Your task to perform on an android device: check the backup settings in the google photos Image 0: 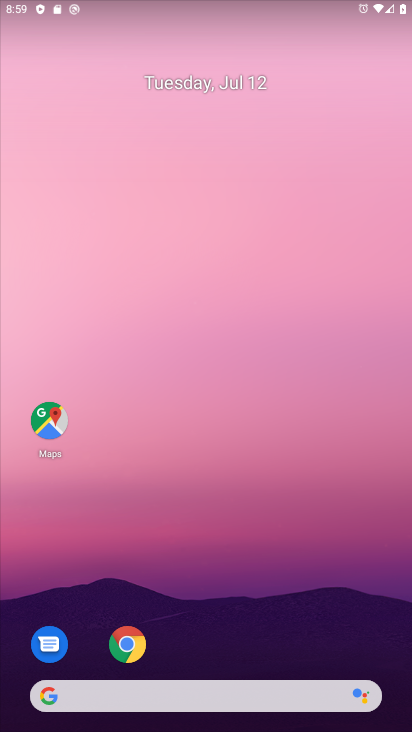
Step 0: drag from (25, 719) to (391, 24)
Your task to perform on an android device: check the backup settings in the google photos Image 1: 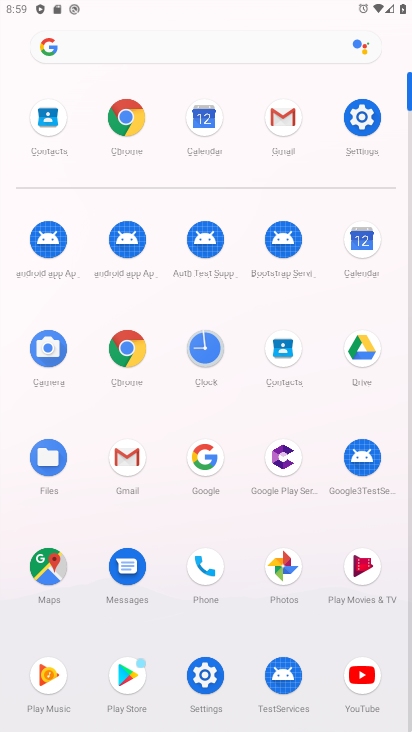
Step 1: click (289, 556)
Your task to perform on an android device: check the backup settings in the google photos Image 2: 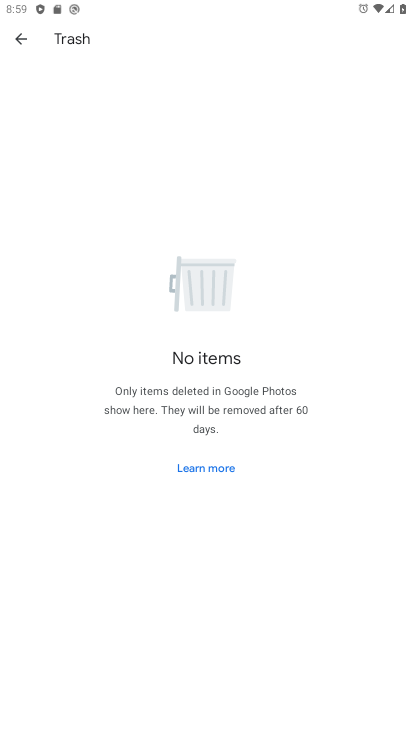
Step 2: click (23, 46)
Your task to perform on an android device: check the backup settings in the google photos Image 3: 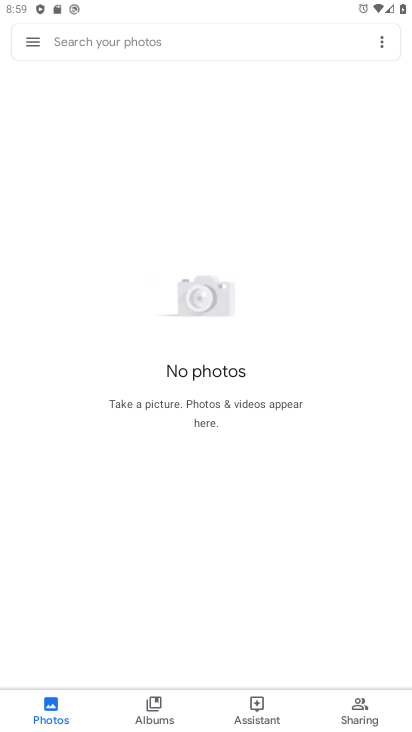
Step 3: click (39, 38)
Your task to perform on an android device: check the backup settings in the google photos Image 4: 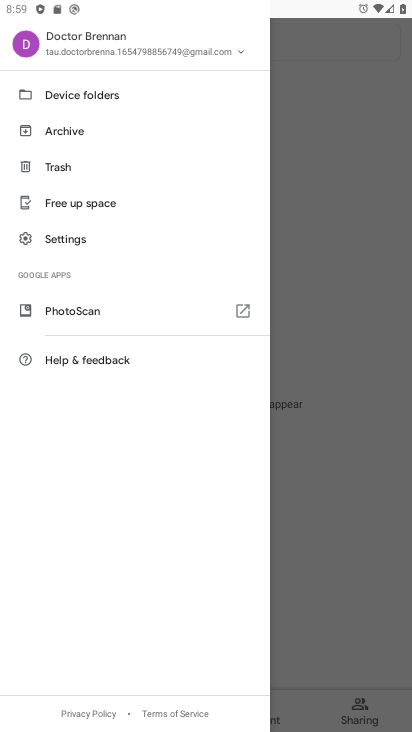
Step 4: click (70, 243)
Your task to perform on an android device: check the backup settings in the google photos Image 5: 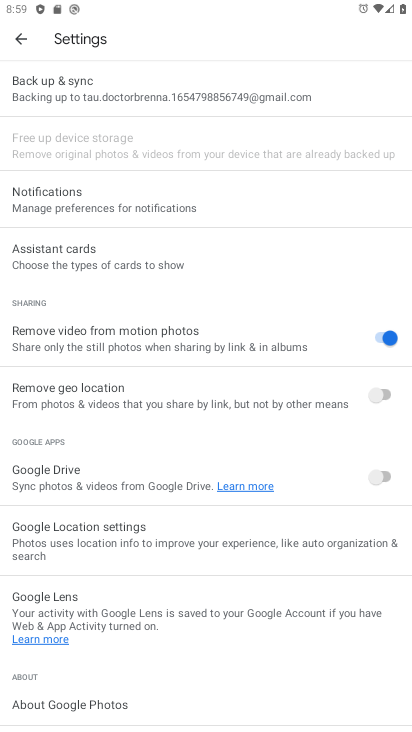
Step 5: click (85, 87)
Your task to perform on an android device: check the backup settings in the google photos Image 6: 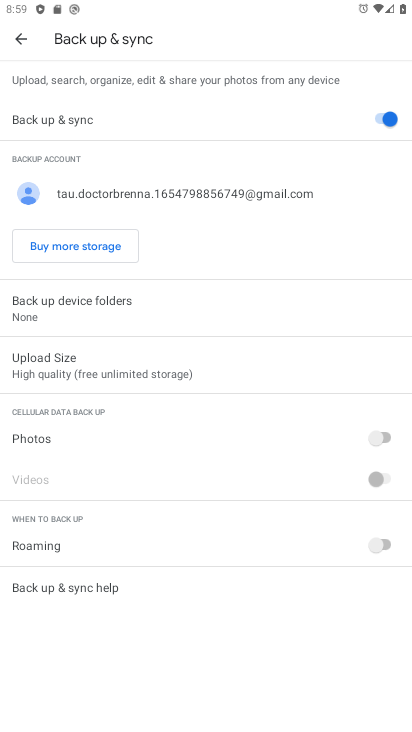
Step 6: task complete